Your task to perform on an android device: Search for top rated burger restaurants on Google Maps Image 0: 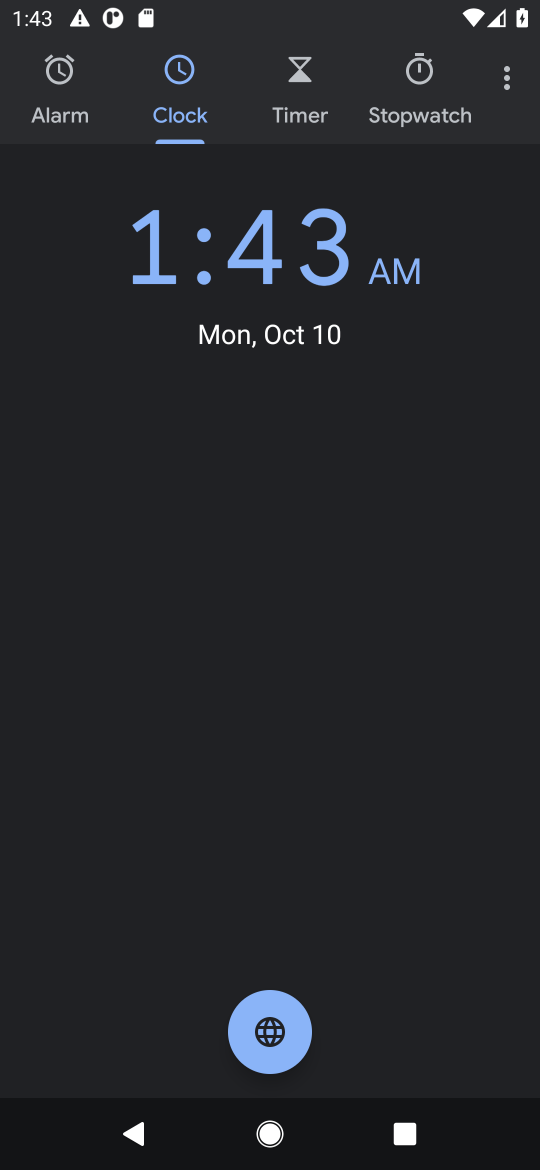
Step 0: press home button
Your task to perform on an android device: Search for top rated burger restaurants on Google Maps Image 1: 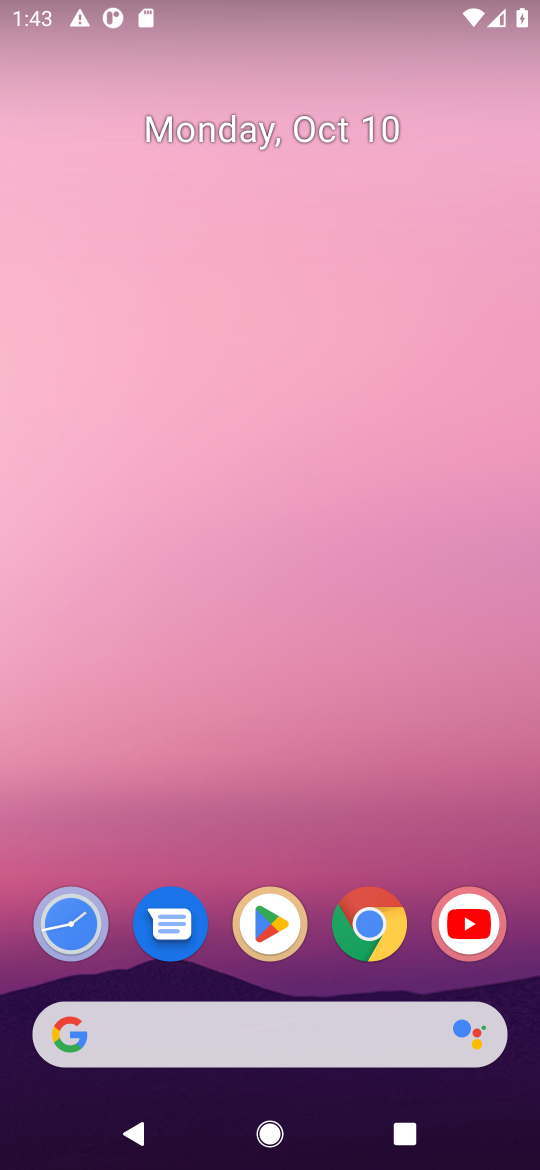
Step 1: click (369, 929)
Your task to perform on an android device: Search for top rated burger restaurants on Google Maps Image 2: 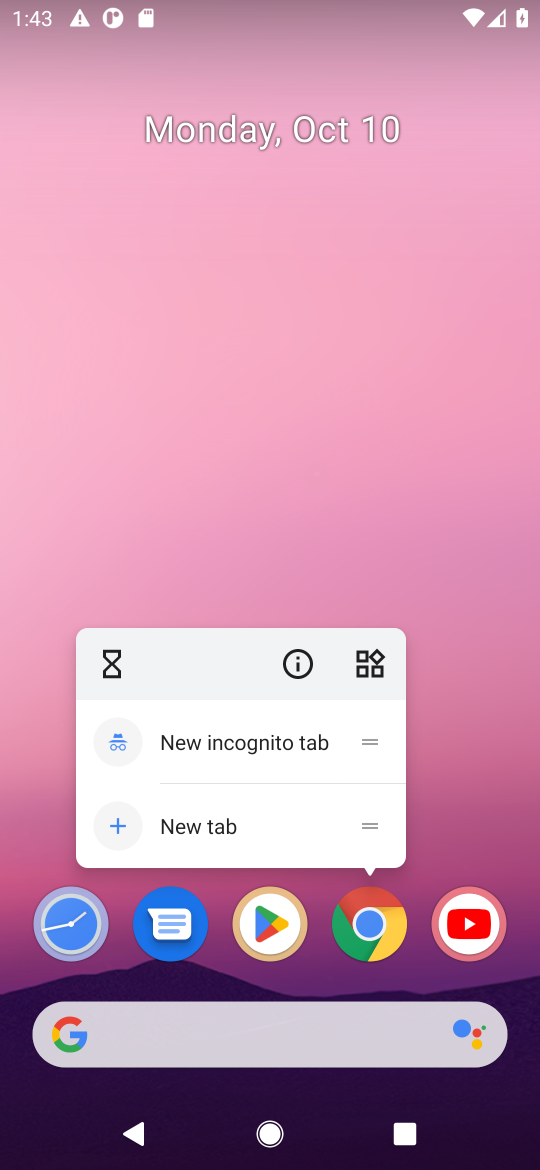
Step 2: click (440, 811)
Your task to perform on an android device: Search for top rated burger restaurants on Google Maps Image 3: 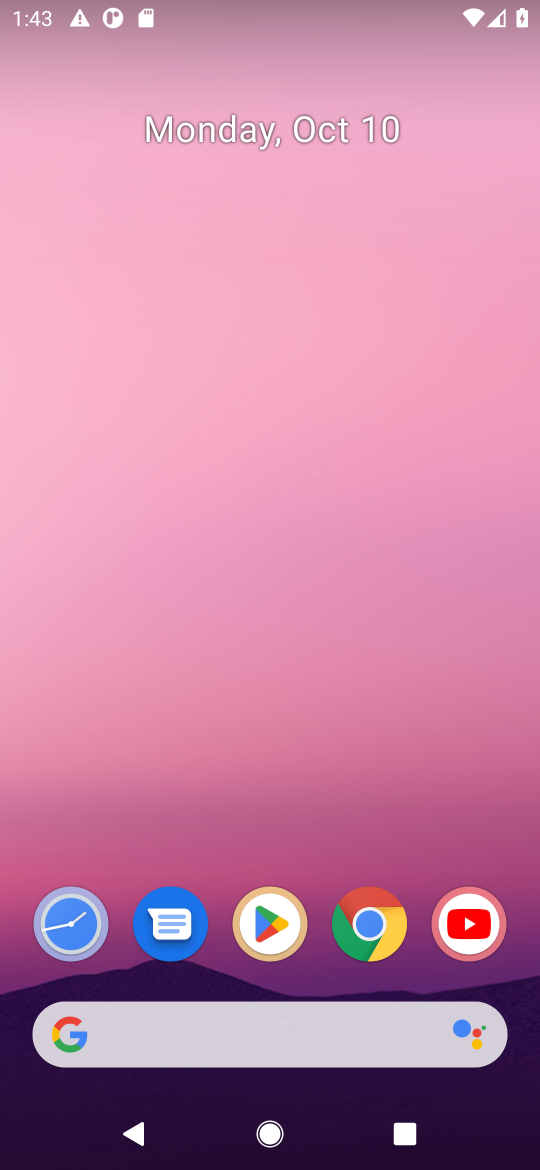
Step 3: click (368, 923)
Your task to perform on an android device: Search for top rated burger restaurants on Google Maps Image 4: 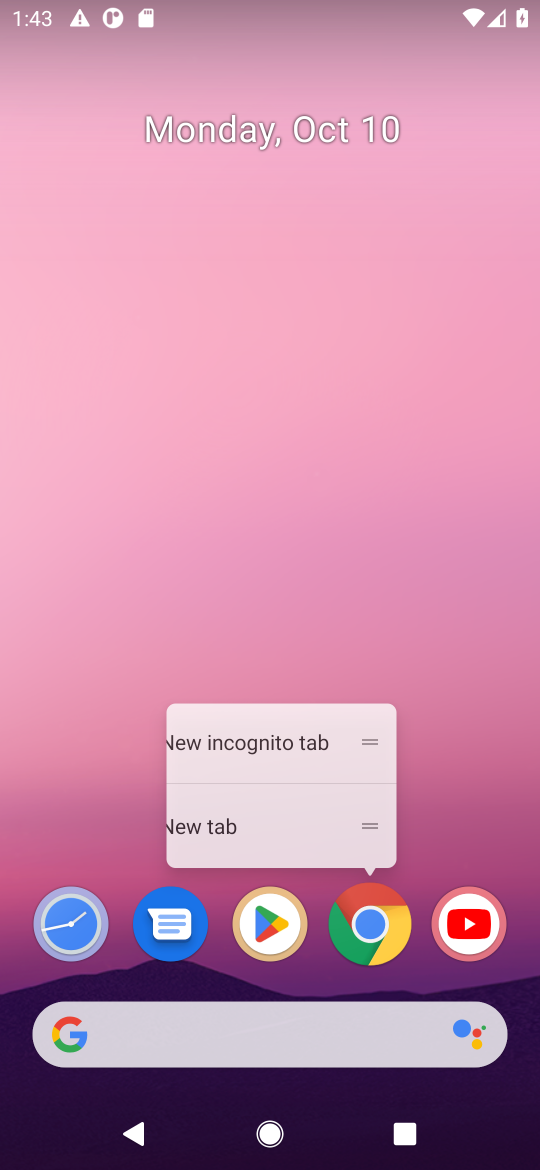
Step 4: click (368, 923)
Your task to perform on an android device: Search for top rated burger restaurants on Google Maps Image 5: 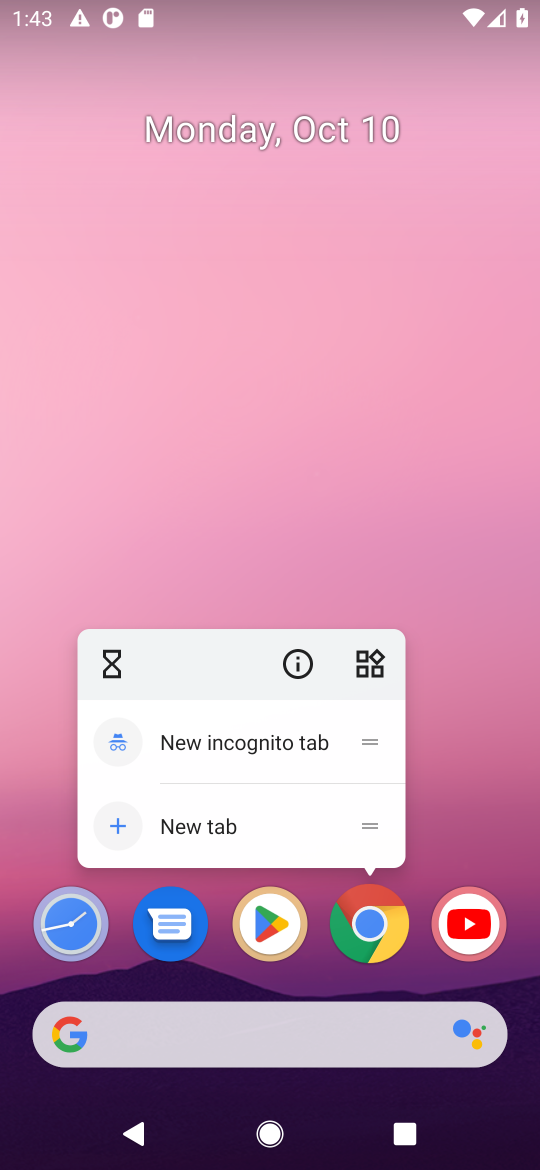
Step 5: click (368, 923)
Your task to perform on an android device: Search for top rated burger restaurants on Google Maps Image 6: 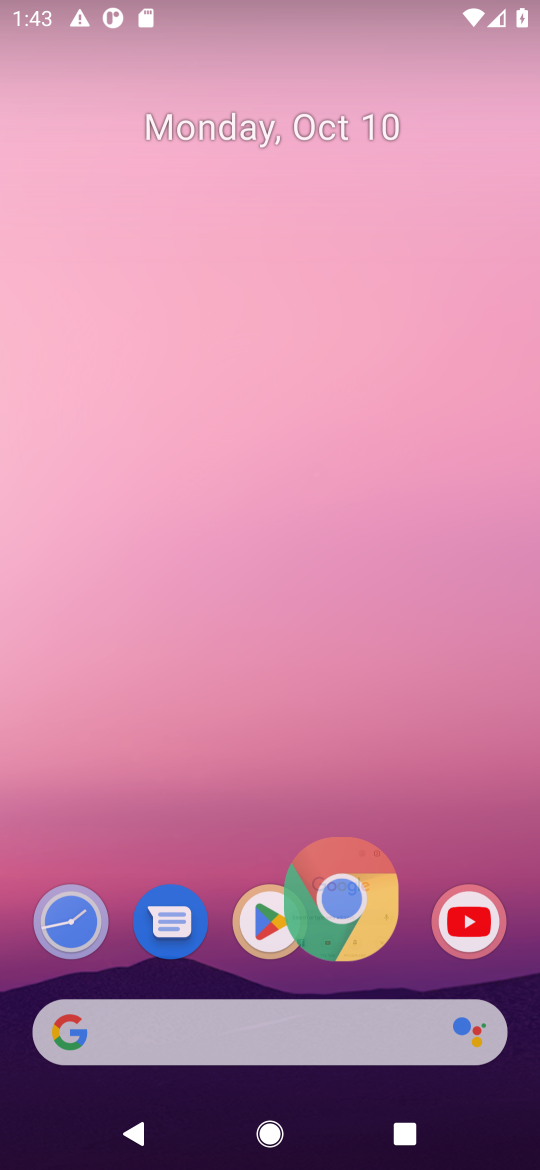
Step 6: click (368, 923)
Your task to perform on an android device: Search for top rated burger restaurants on Google Maps Image 7: 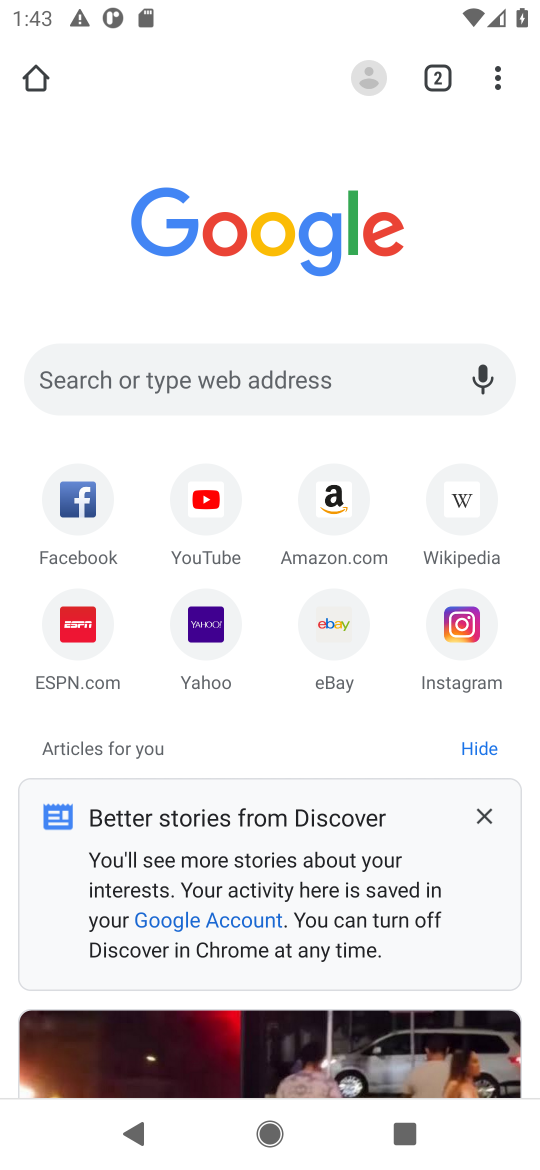
Step 7: click (135, 363)
Your task to perform on an android device: Search for top rated burger restaurants on Google Maps Image 8: 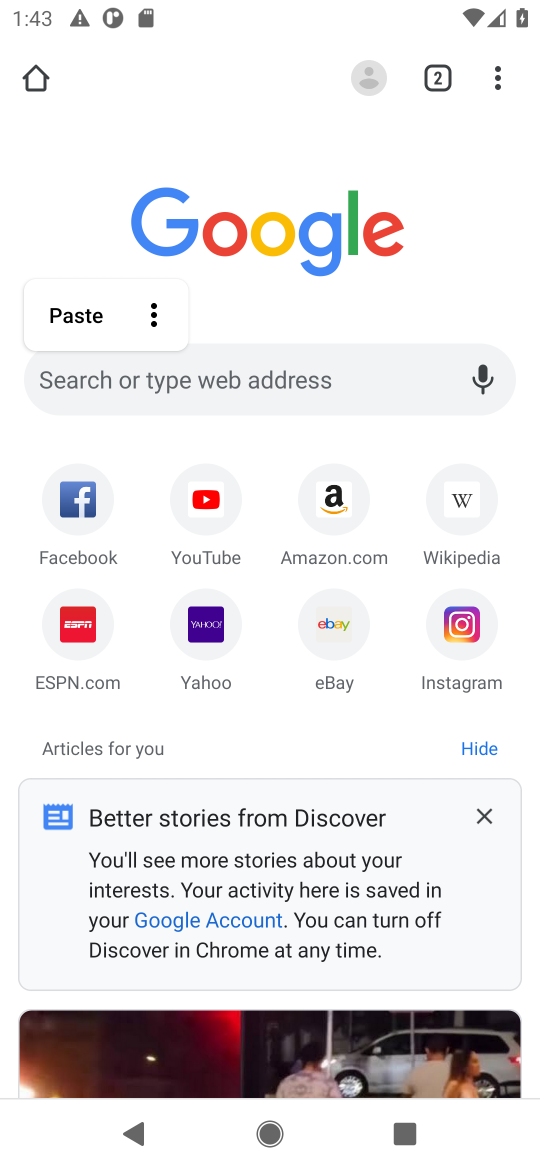
Step 8: press home button
Your task to perform on an android device: Search for top rated burger restaurants on Google Maps Image 9: 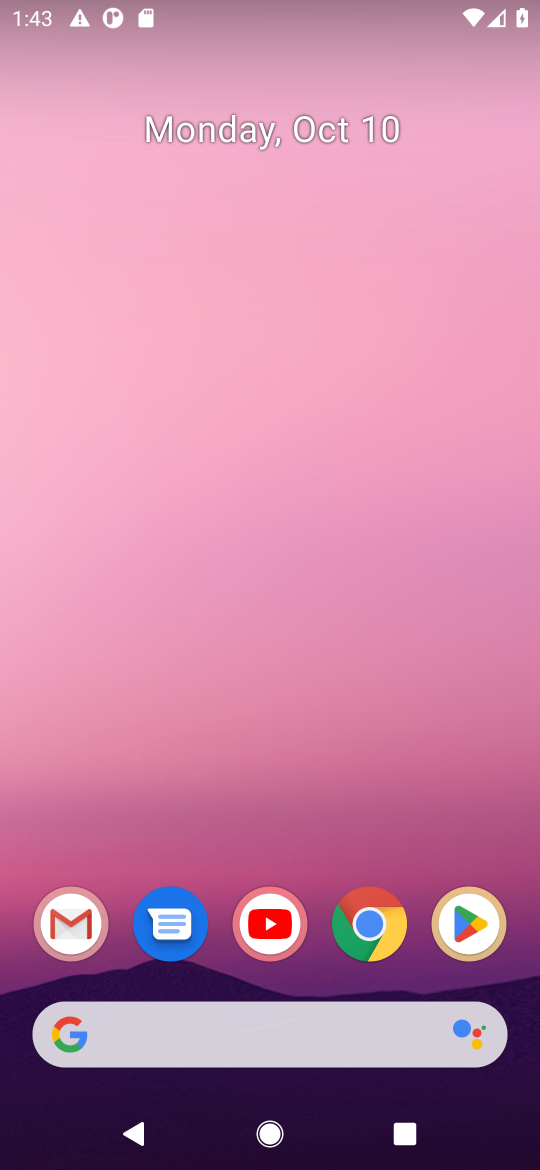
Step 9: drag from (314, 842) to (393, 0)
Your task to perform on an android device: Search for top rated burger restaurants on Google Maps Image 10: 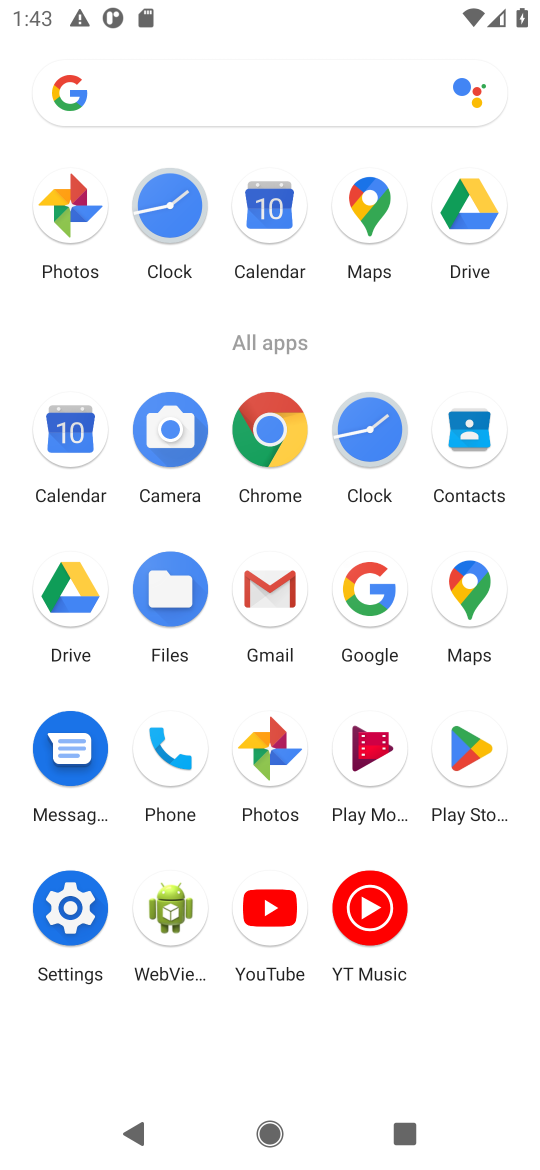
Step 10: click (469, 587)
Your task to perform on an android device: Search for top rated burger restaurants on Google Maps Image 11: 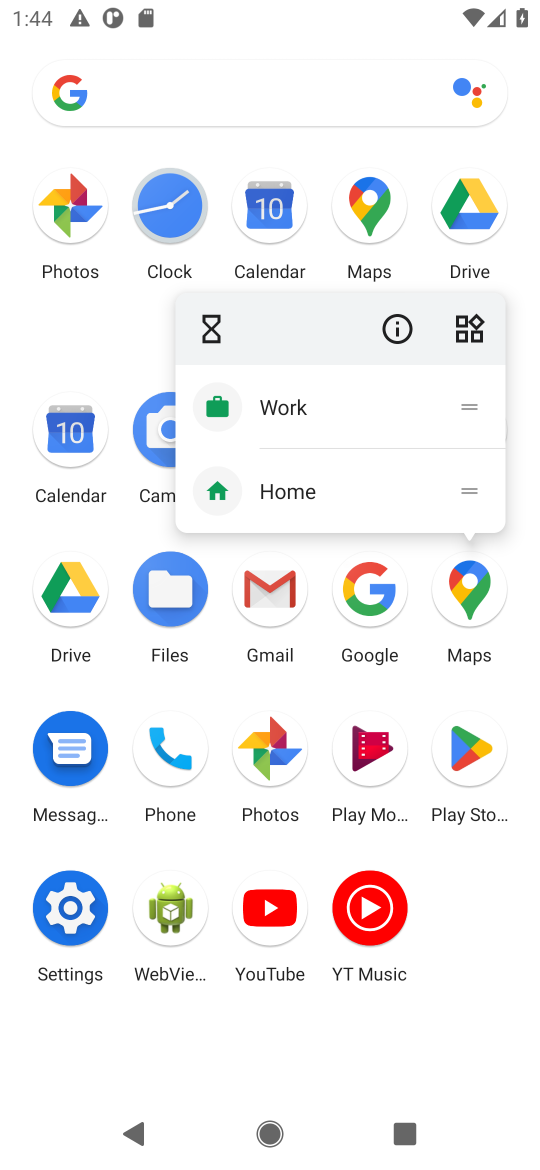
Step 11: click (364, 190)
Your task to perform on an android device: Search for top rated burger restaurants on Google Maps Image 12: 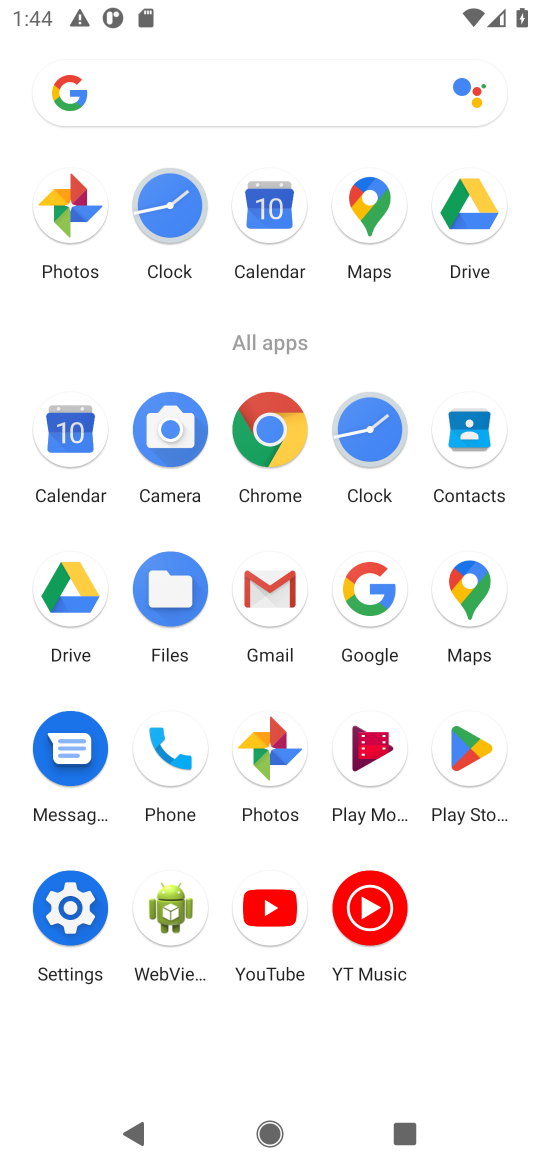
Step 12: click (369, 198)
Your task to perform on an android device: Search for top rated burger restaurants on Google Maps Image 13: 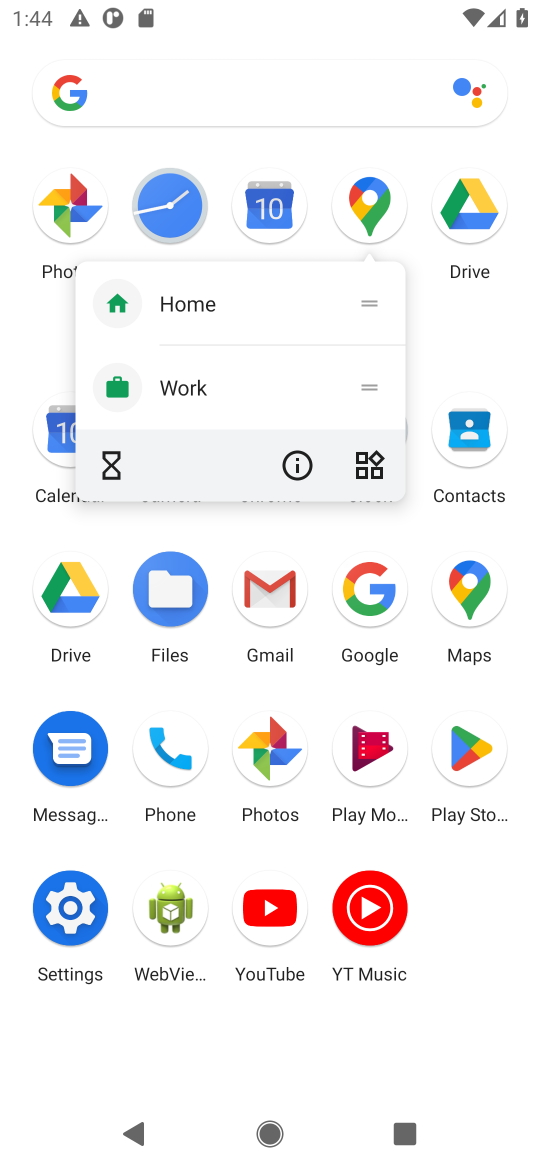
Step 13: click (375, 217)
Your task to perform on an android device: Search for top rated burger restaurants on Google Maps Image 14: 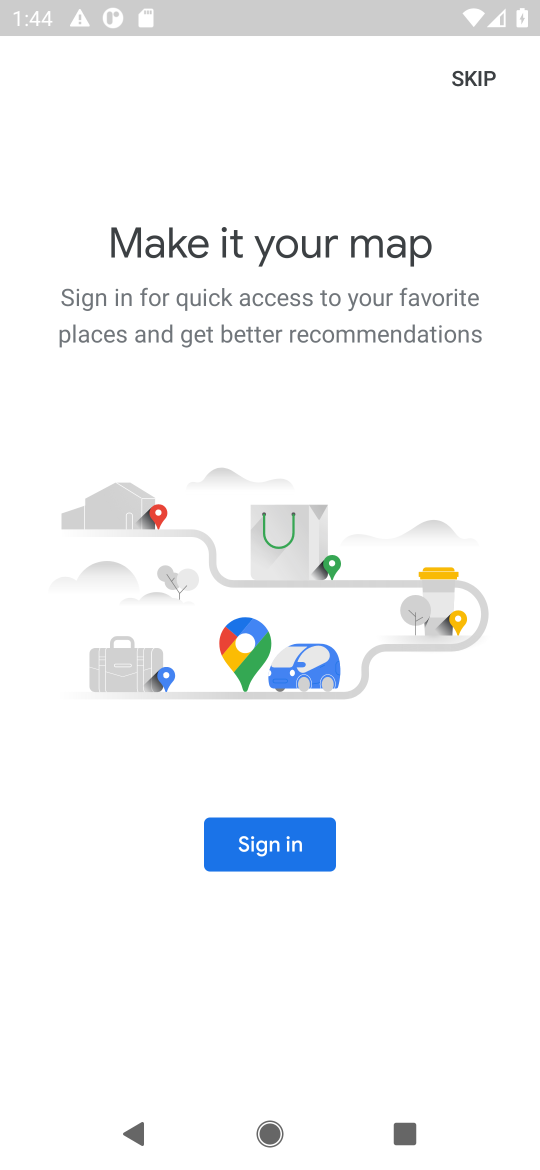
Step 14: click (314, 835)
Your task to perform on an android device: Search for top rated burger restaurants on Google Maps Image 15: 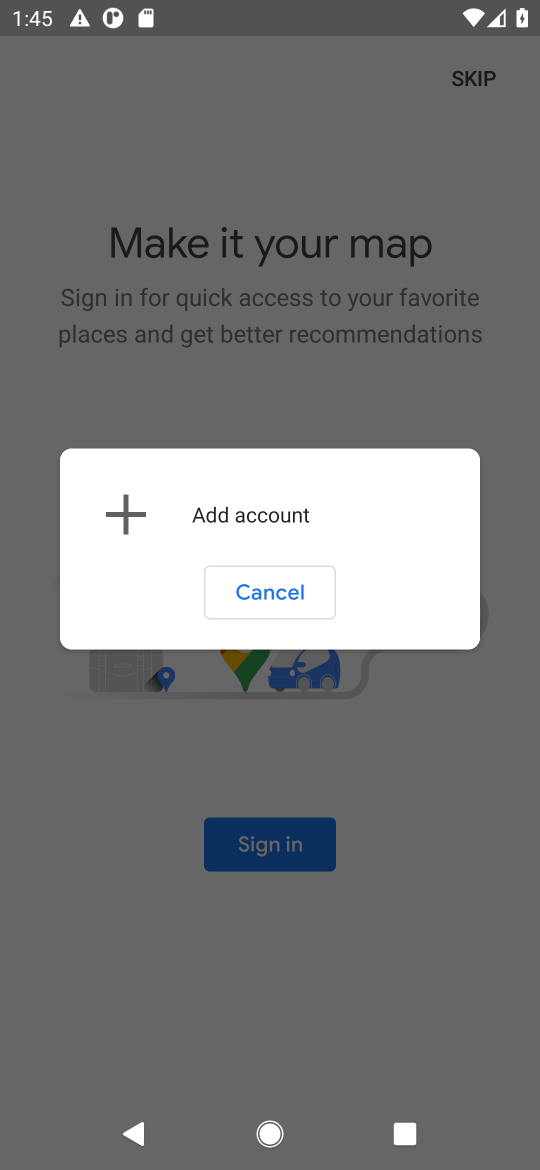
Step 15: task complete